Your task to perform on an android device: toggle improve location accuracy Image 0: 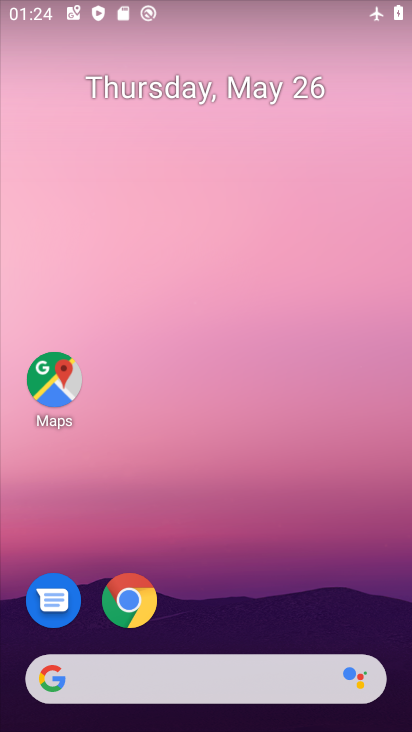
Step 0: drag from (238, 564) to (238, 65)
Your task to perform on an android device: toggle improve location accuracy Image 1: 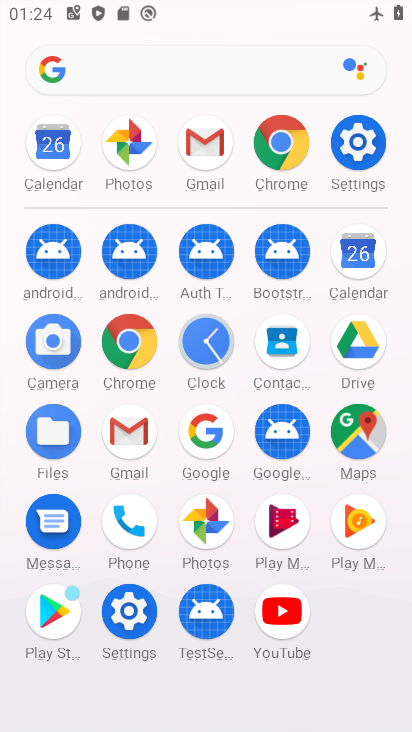
Step 1: click (355, 147)
Your task to perform on an android device: toggle improve location accuracy Image 2: 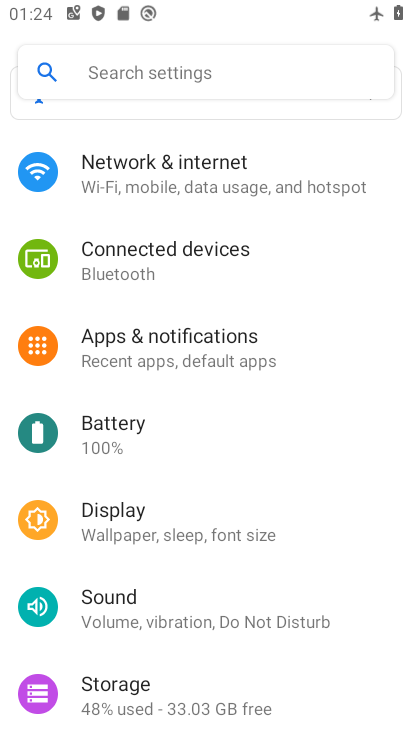
Step 2: click (156, 597)
Your task to perform on an android device: toggle improve location accuracy Image 3: 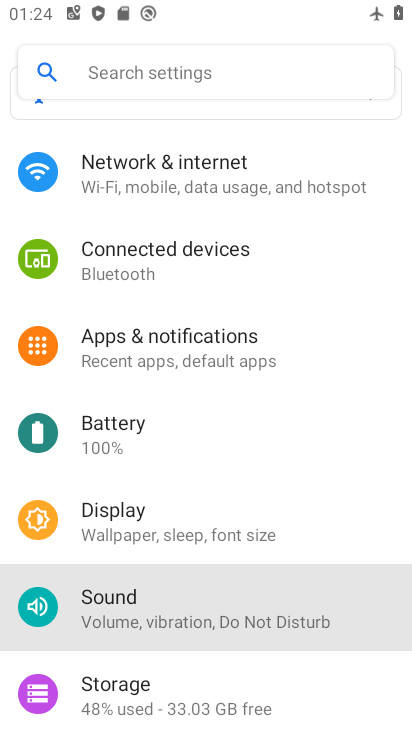
Step 3: drag from (160, 568) to (178, 441)
Your task to perform on an android device: toggle improve location accuracy Image 4: 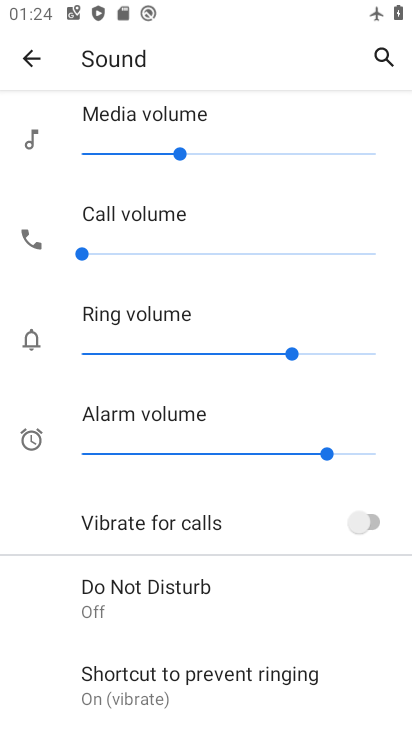
Step 4: press back button
Your task to perform on an android device: toggle improve location accuracy Image 5: 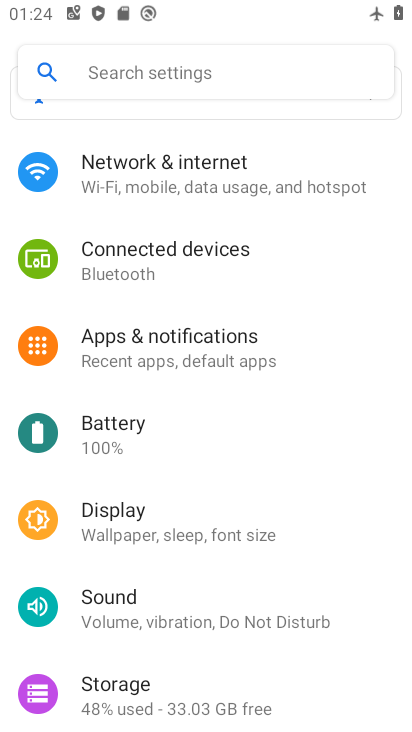
Step 5: click (366, 647)
Your task to perform on an android device: toggle improve location accuracy Image 6: 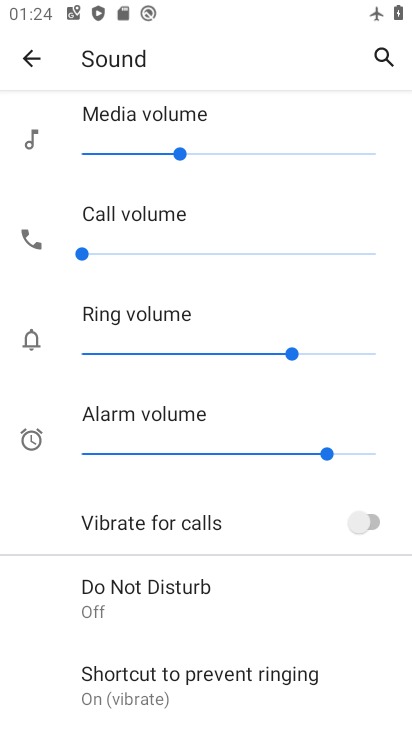
Step 6: press back button
Your task to perform on an android device: toggle improve location accuracy Image 7: 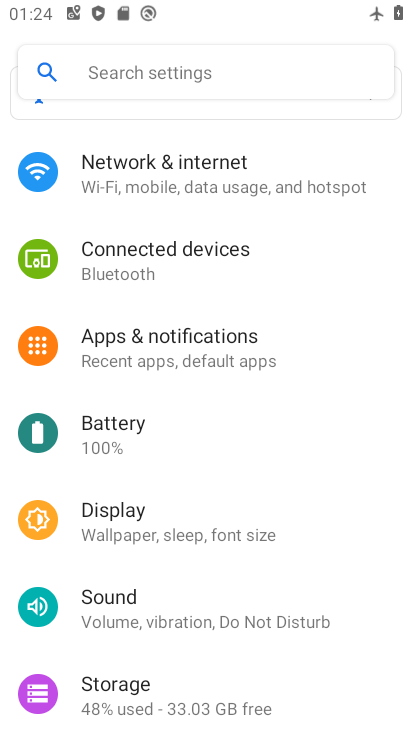
Step 7: drag from (405, 682) to (407, 157)
Your task to perform on an android device: toggle improve location accuracy Image 8: 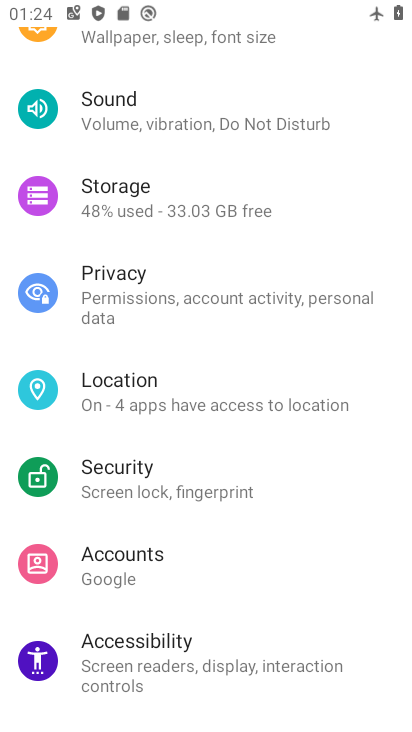
Step 8: click (174, 393)
Your task to perform on an android device: toggle improve location accuracy Image 9: 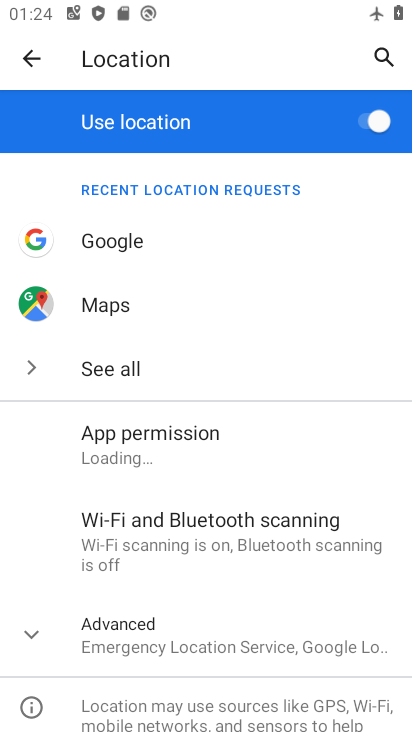
Step 9: drag from (265, 560) to (272, 245)
Your task to perform on an android device: toggle improve location accuracy Image 10: 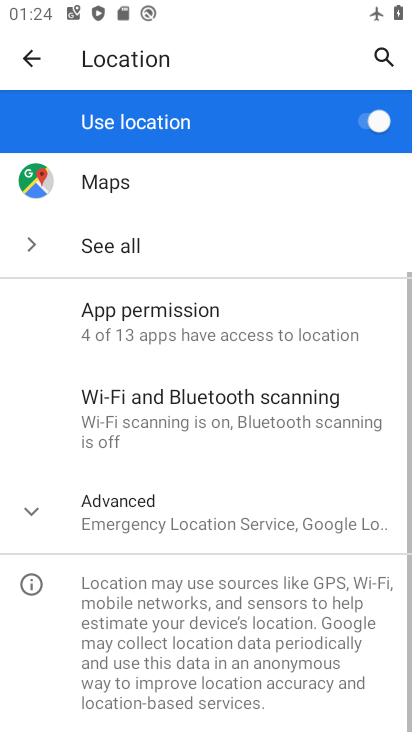
Step 10: click (234, 485)
Your task to perform on an android device: toggle improve location accuracy Image 11: 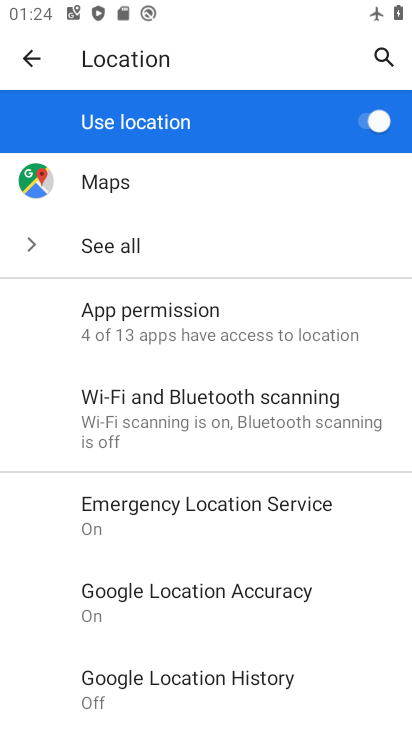
Step 11: click (281, 582)
Your task to perform on an android device: toggle improve location accuracy Image 12: 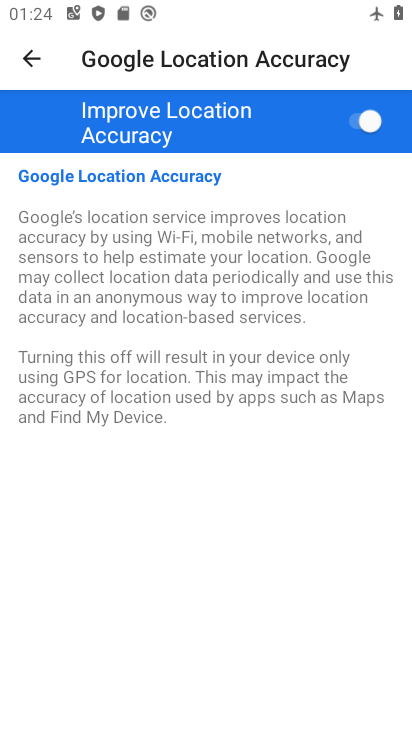
Step 12: click (353, 116)
Your task to perform on an android device: toggle improve location accuracy Image 13: 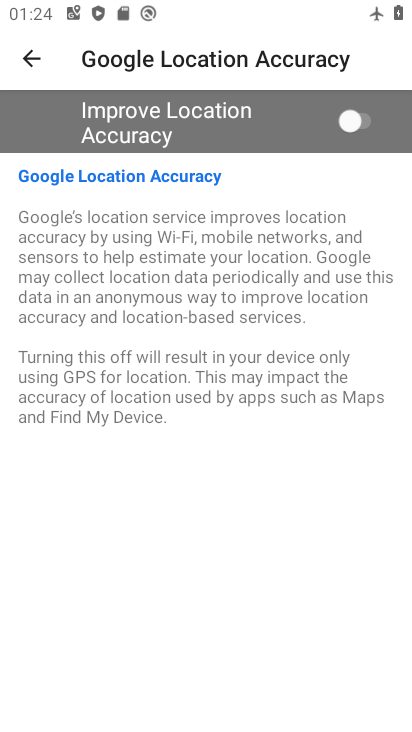
Step 13: task complete